Your task to perform on an android device: turn on airplane mode Image 0: 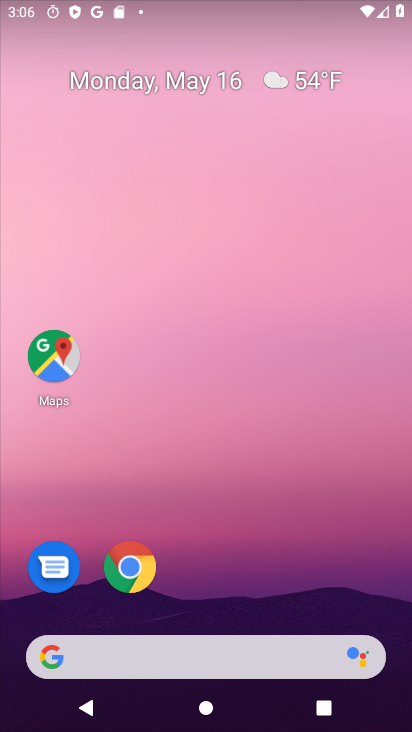
Step 0: drag from (257, 566) to (232, 130)
Your task to perform on an android device: turn on airplane mode Image 1: 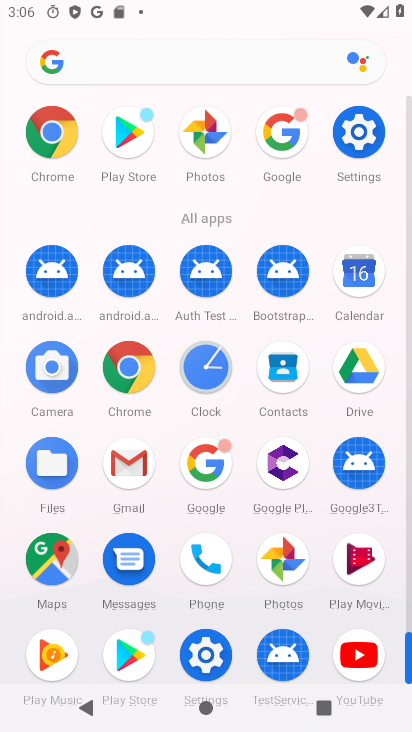
Step 1: click (359, 133)
Your task to perform on an android device: turn on airplane mode Image 2: 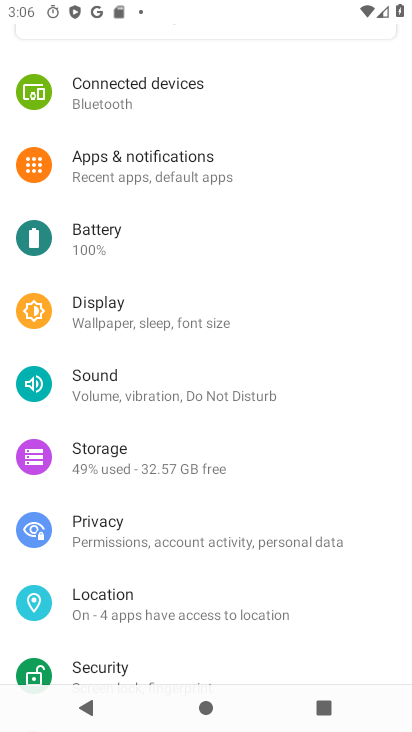
Step 2: drag from (141, 119) to (210, 339)
Your task to perform on an android device: turn on airplane mode Image 3: 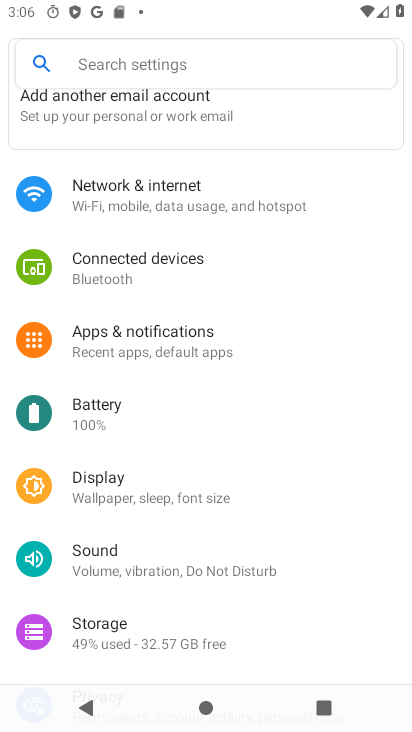
Step 3: click (163, 206)
Your task to perform on an android device: turn on airplane mode Image 4: 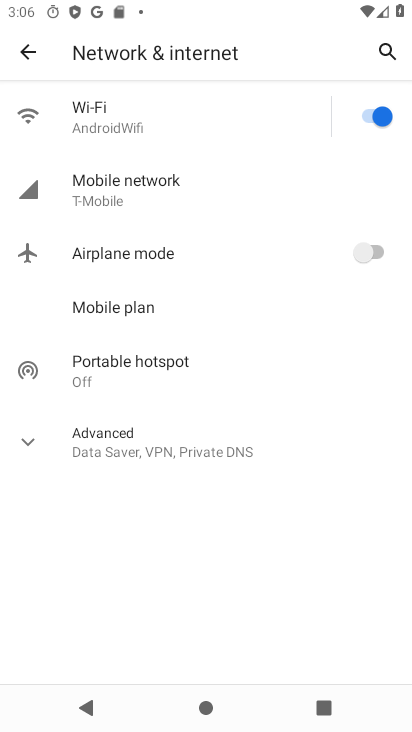
Step 4: click (361, 251)
Your task to perform on an android device: turn on airplane mode Image 5: 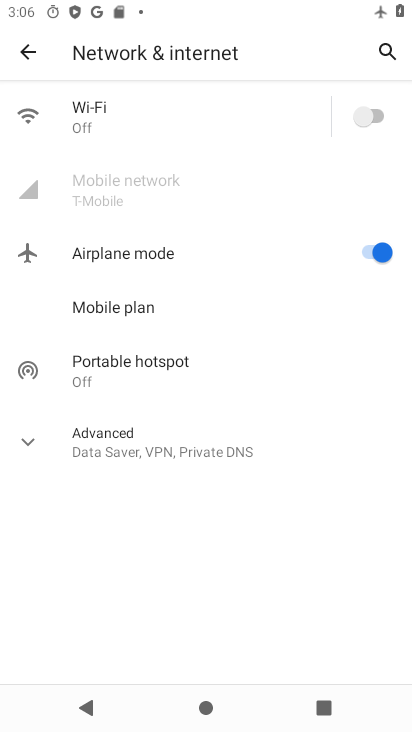
Step 5: task complete